Your task to perform on an android device: add a label to a message in the gmail app Image 0: 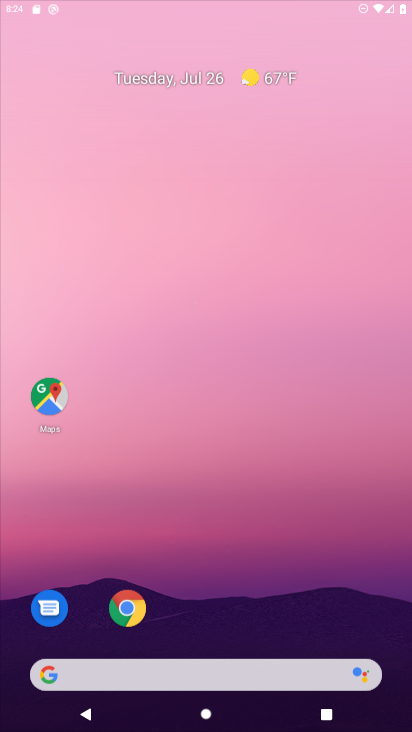
Step 0: drag from (237, 41) to (273, 6)
Your task to perform on an android device: add a label to a message in the gmail app Image 1: 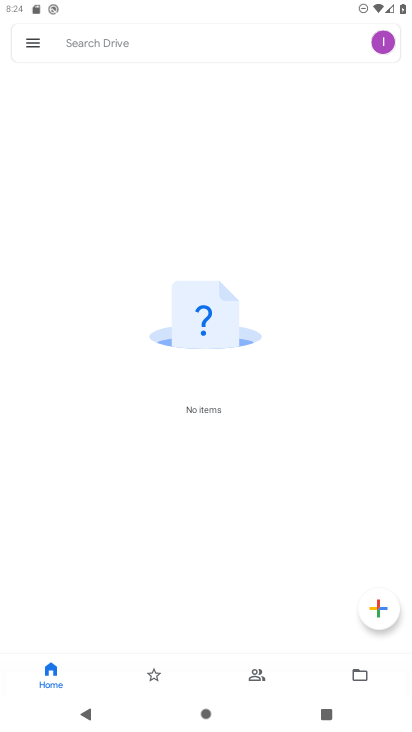
Step 1: press home button
Your task to perform on an android device: add a label to a message in the gmail app Image 2: 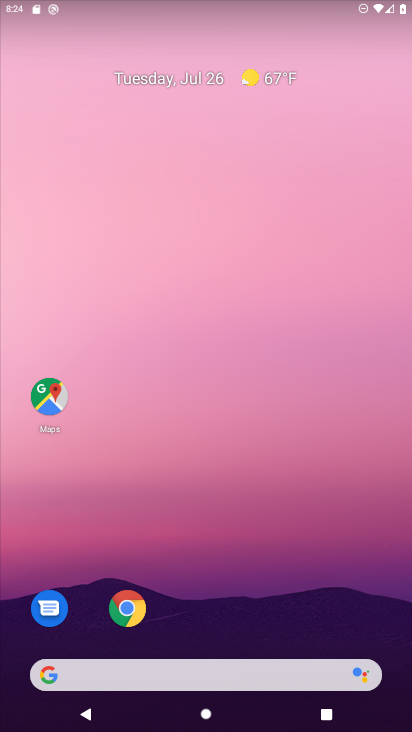
Step 2: drag from (237, 632) to (219, 120)
Your task to perform on an android device: add a label to a message in the gmail app Image 3: 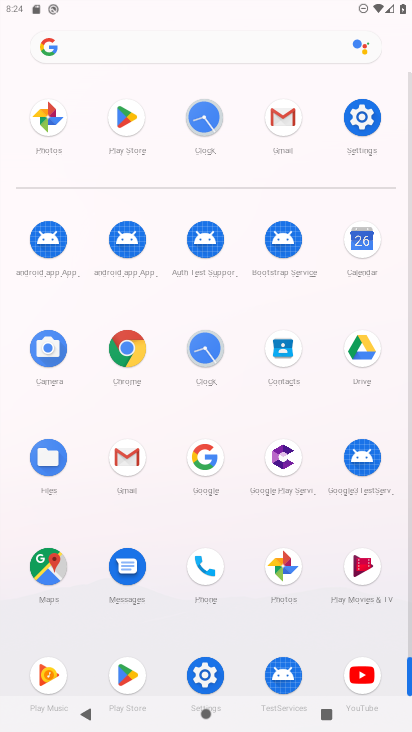
Step 3: click (134, 470)
Your task to perform on an android device: add a label to a message in the gmail app Image 4: 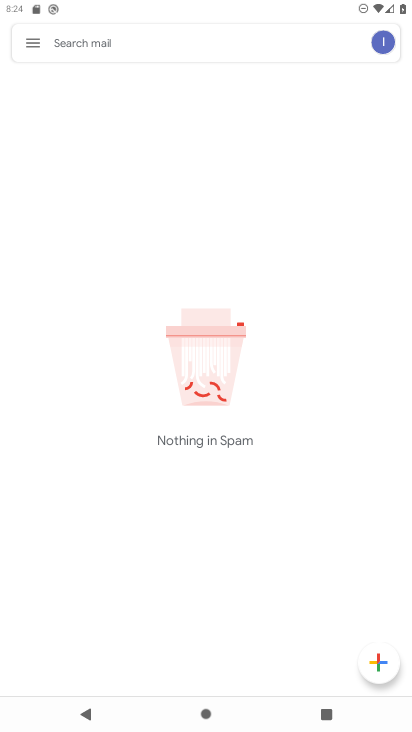
Step 4: click (34, 36)
Your task to perform on an android device: add a label to a message in the gmail app Image 5: 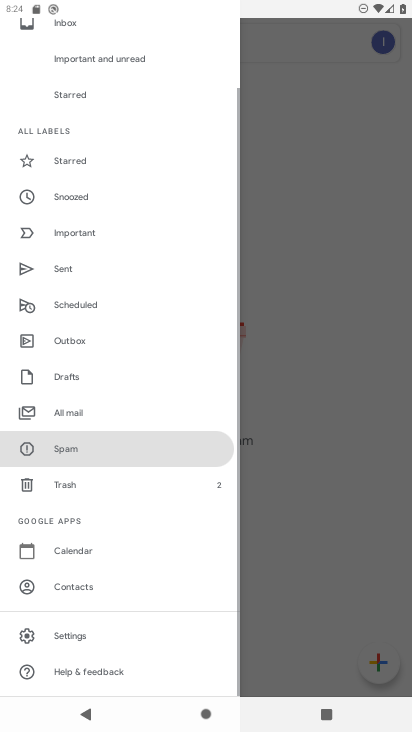
Step 5: drag from (73, 120) to (79, 577)
Your task to perform on an android device: add a label to a message in the gmail app Image 6: 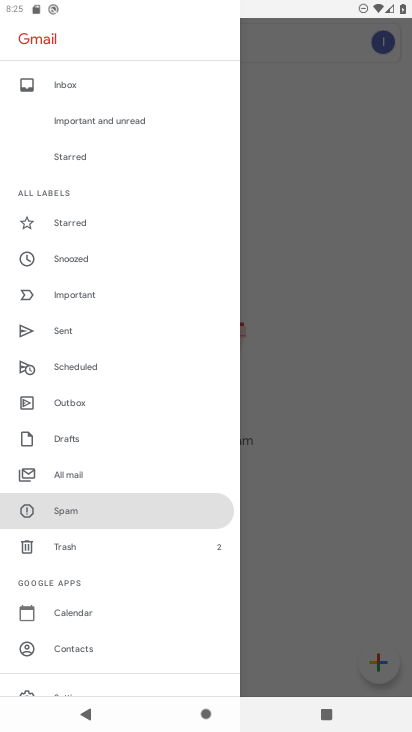
Step 6: click (83, 83)
Your task to perform on an android device: add a label to a message in the gmail app Image 7: 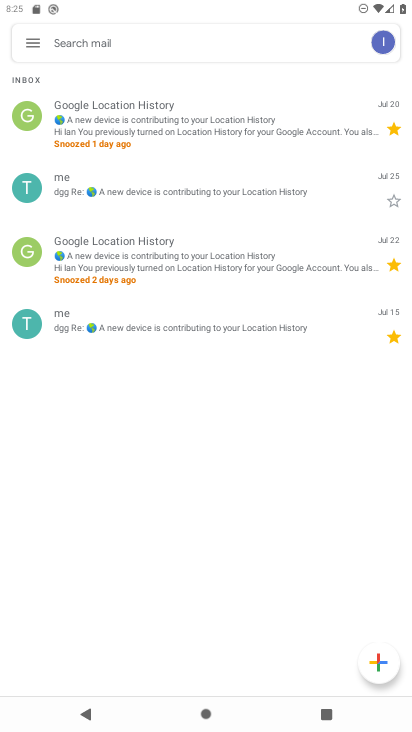
Step 7: click (31, 122)
Your task to perform on an android device: add a label to a message in the gmail app Image 8: 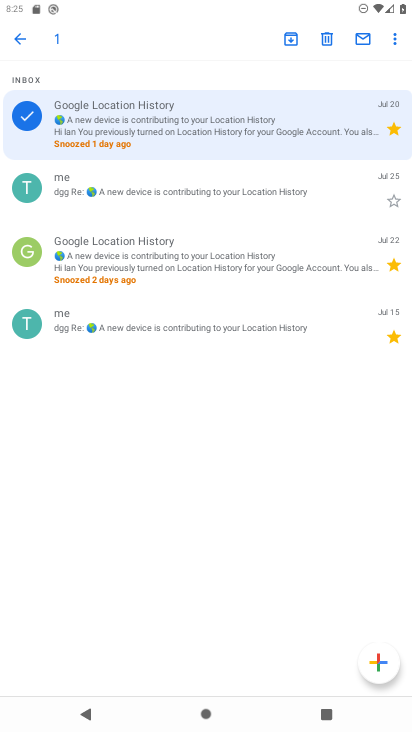
Step 8: click (392, 34)
Your task to perform on an android device: add a label to a message in the gmail app Image 9: 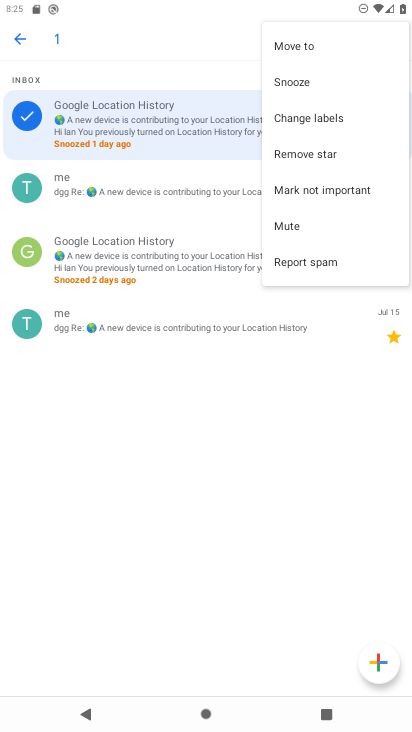
Step 9: click (335, 117)
Your task to perform on an android device: add a label to a message in the gmail app Image 10: 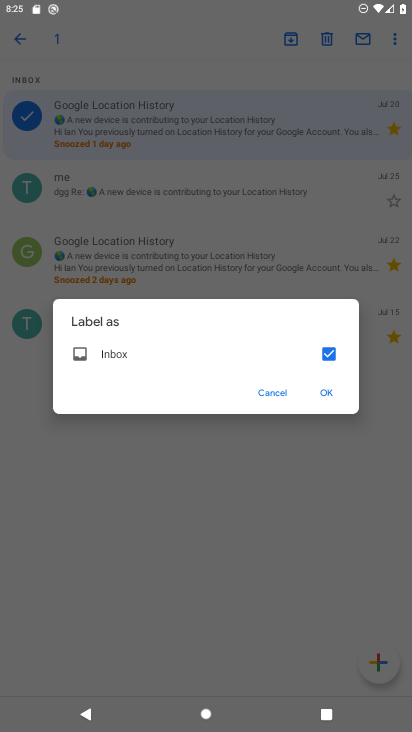
Step 10: click (314, 354)
Your task to perform on an android device: add a label to a message in the gmail app Image 11: 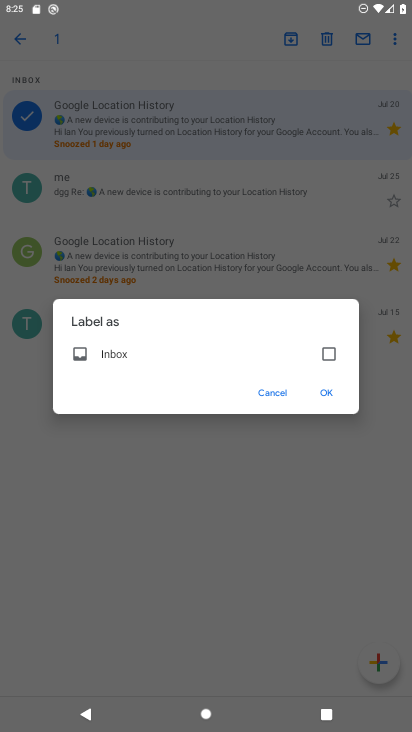
Step 11: click (335, 396)
Your task to perform on an android device: add a label to a message in the gmail app Image 12: 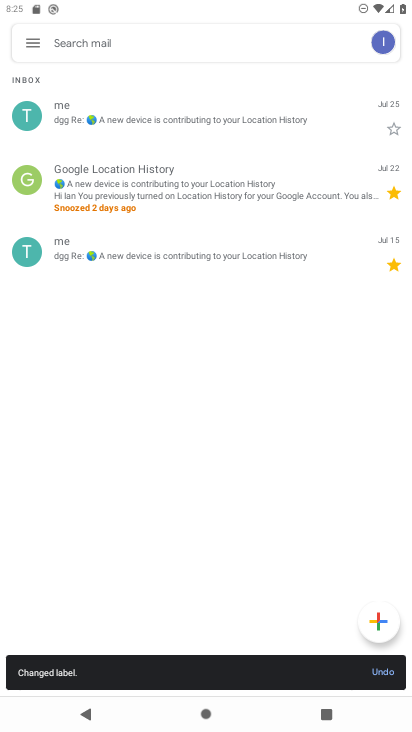
Step 12: task complete